Your task to perform on an android device: Check the weather Image 0: 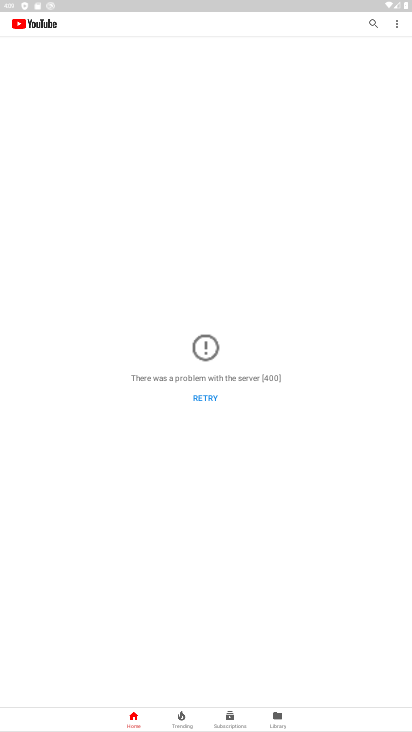
Step 0: press home button
Your task to perform on an android device: Check the weather Image 1: 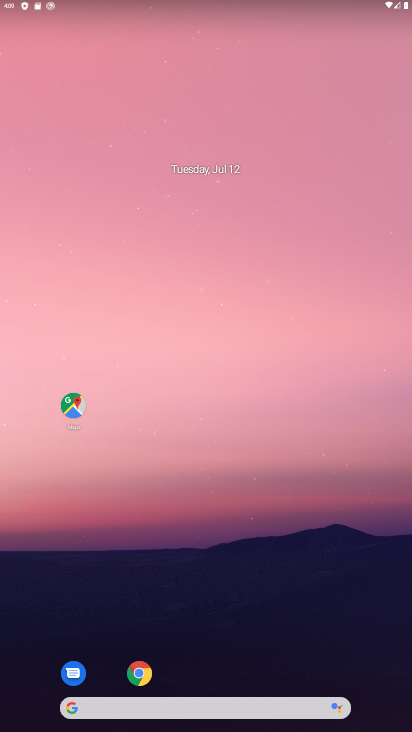
Step 1: drag from (249, 670) to (292, 147)
Your task to perform on an android device: Check the weather Image 2: 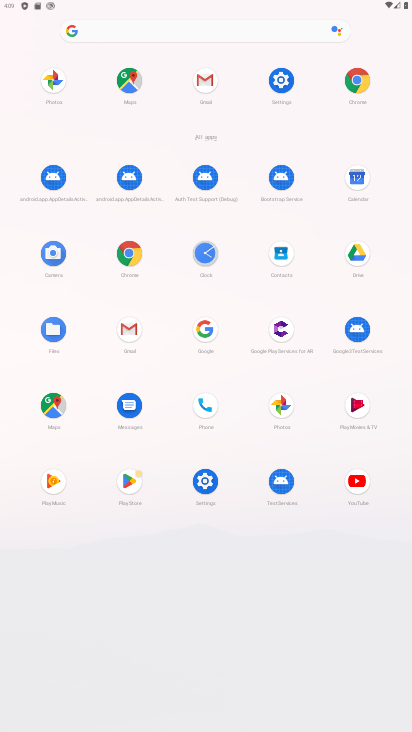
Step 2: click (203, 327)
Your task to perform on an android device: Check the weather Image 3: 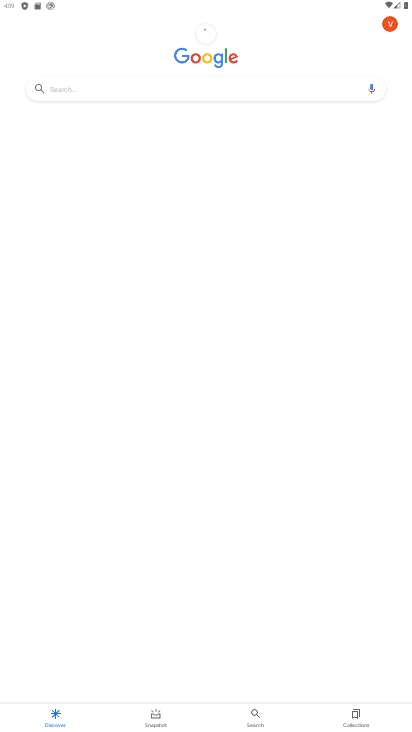
Step 3: click (218, 85)
Your task to perform on an android device: Check the weather Image 4: 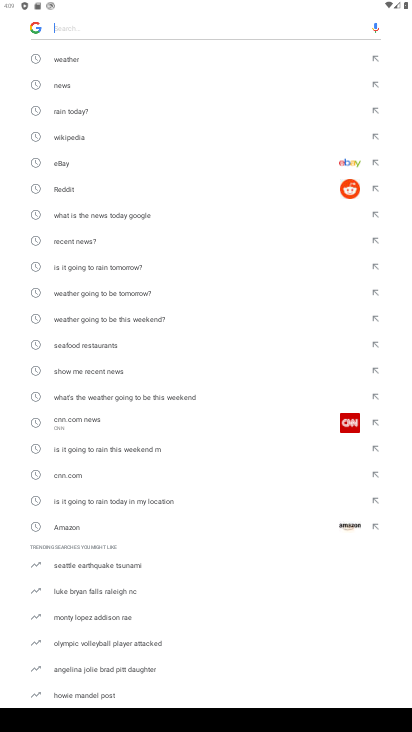
Step 4: press back button
Your task to perform on an android device: Check the weather Image 5: 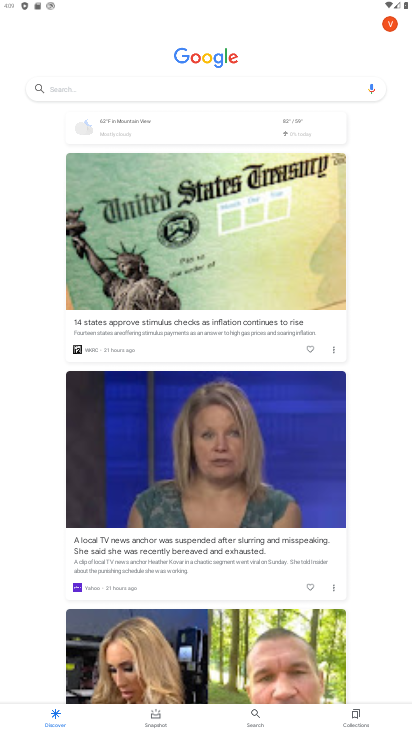
Step 5: click (193, 123)
Your task to perform on an android device: Check the weather Image 6: 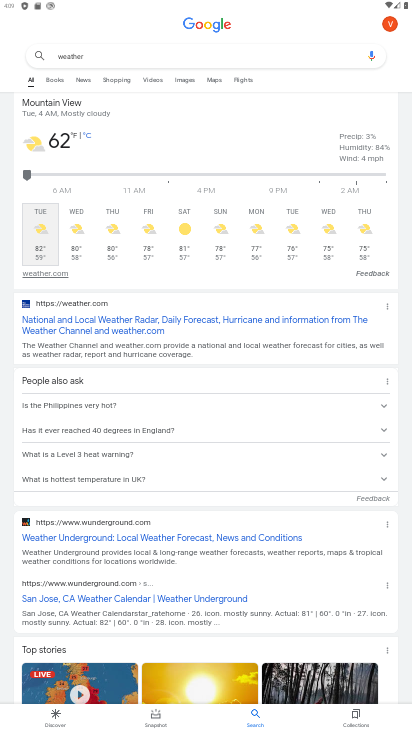
Step 6: task complete